Your task to perform on an android device: uninstall "Google Drive" Image 0: 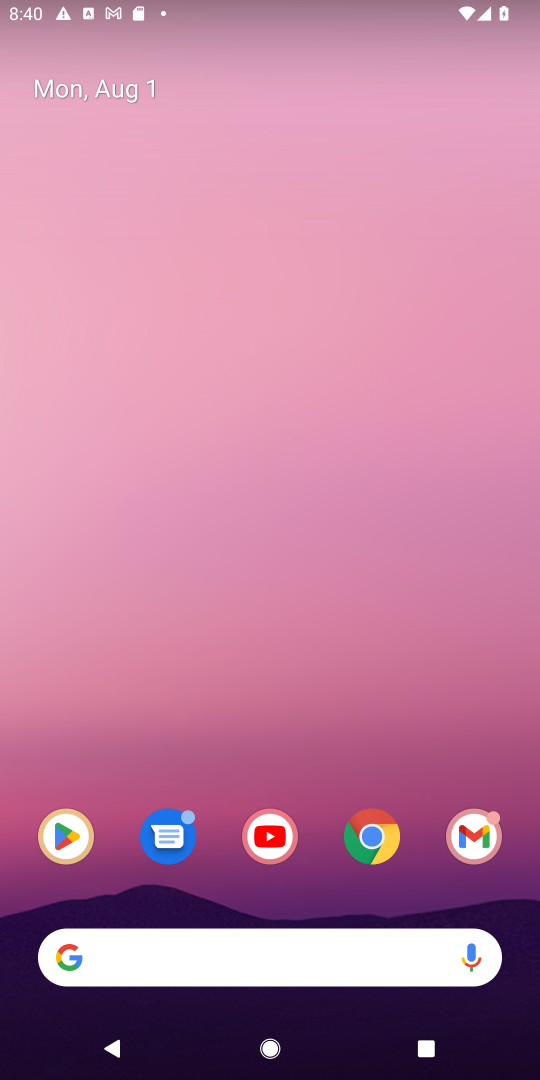
Step 0: press home button
Your task to perform on an android device: uninstall "Google Drive" Image 1: 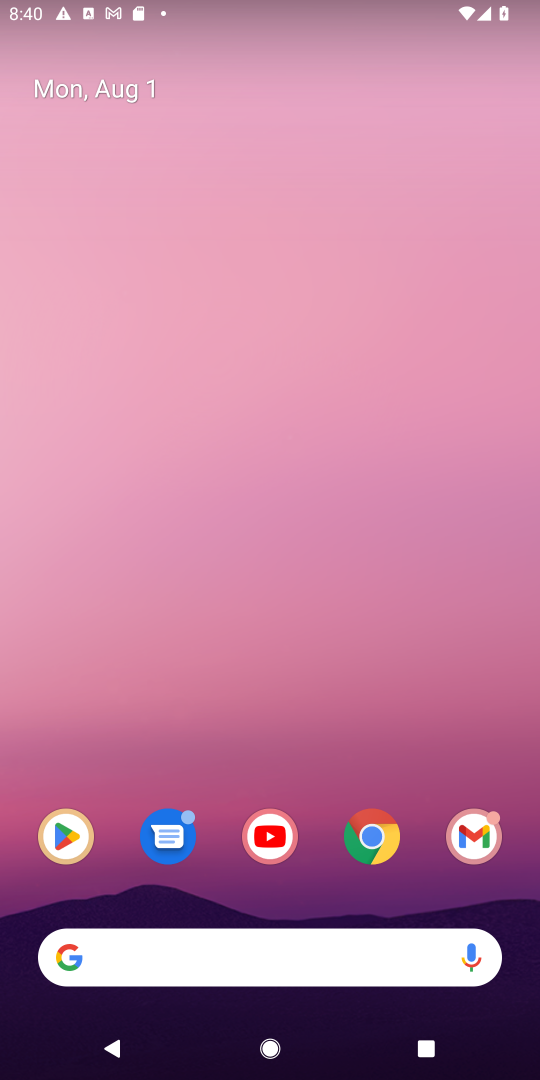
Step 1: click (55, 829)
Your task to perform on an android device: uninstall "Google Drive" Image 2: 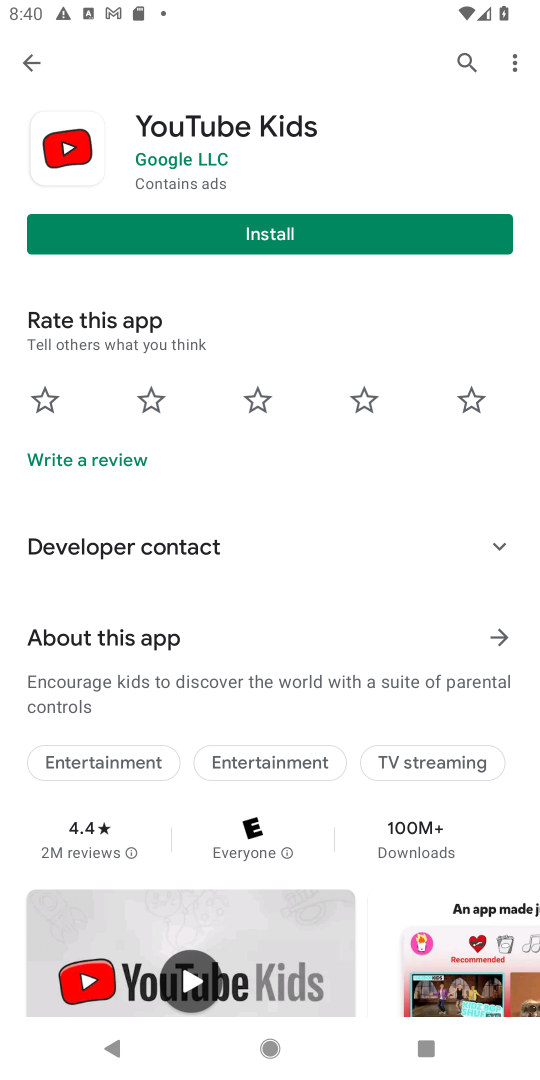
Step 2: click (464, 59)
Your task to perform on an android device: uninstall "Google Drive" Image 3: 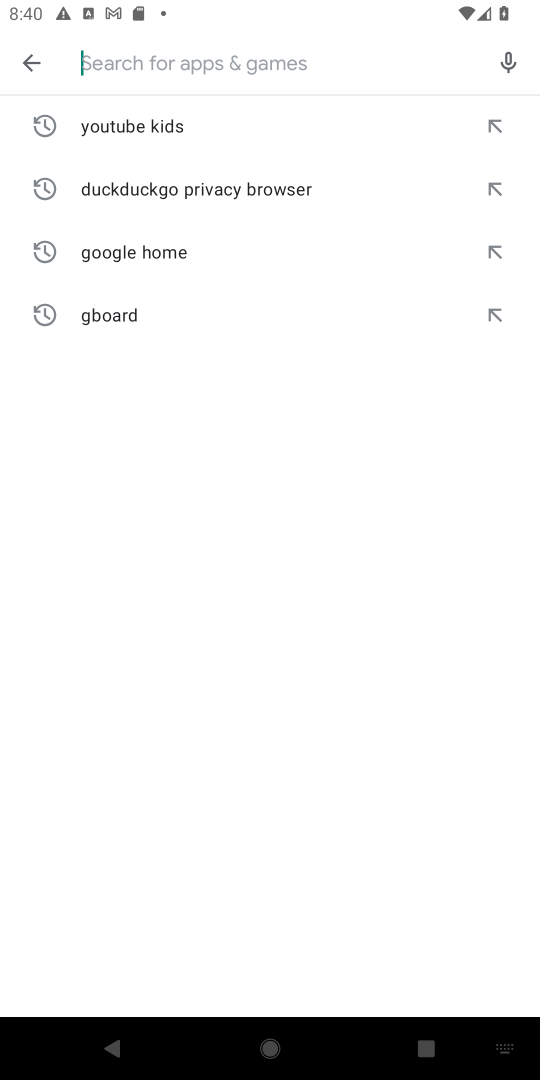
Step 3: type "Google Drive"
Your task to perform on an android device: uninstall "Google Drive" Image 4: 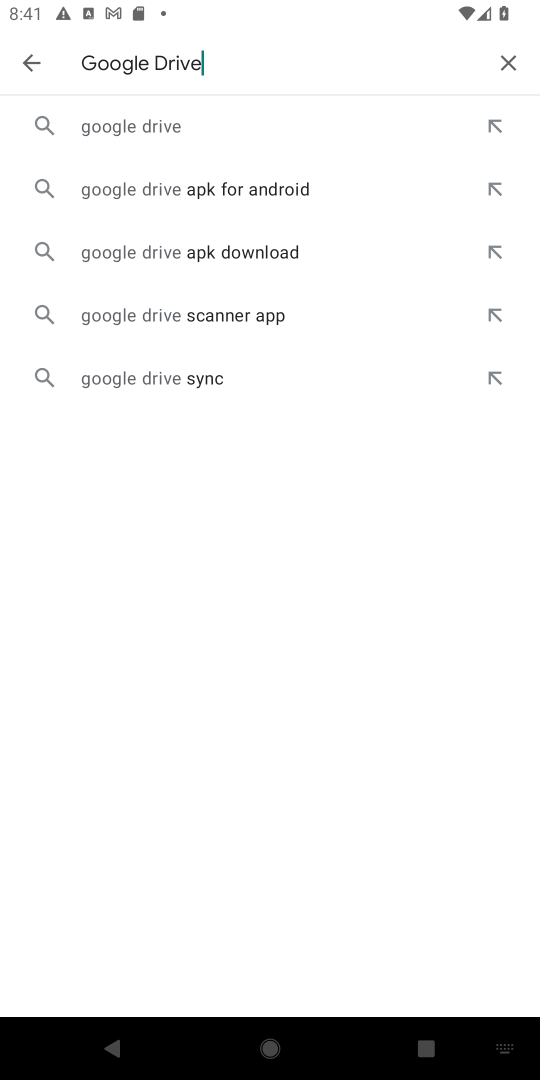
Step 4: click (154, 132)
Your task to perform on an android device: uninstall "Google Drive" Image 5: 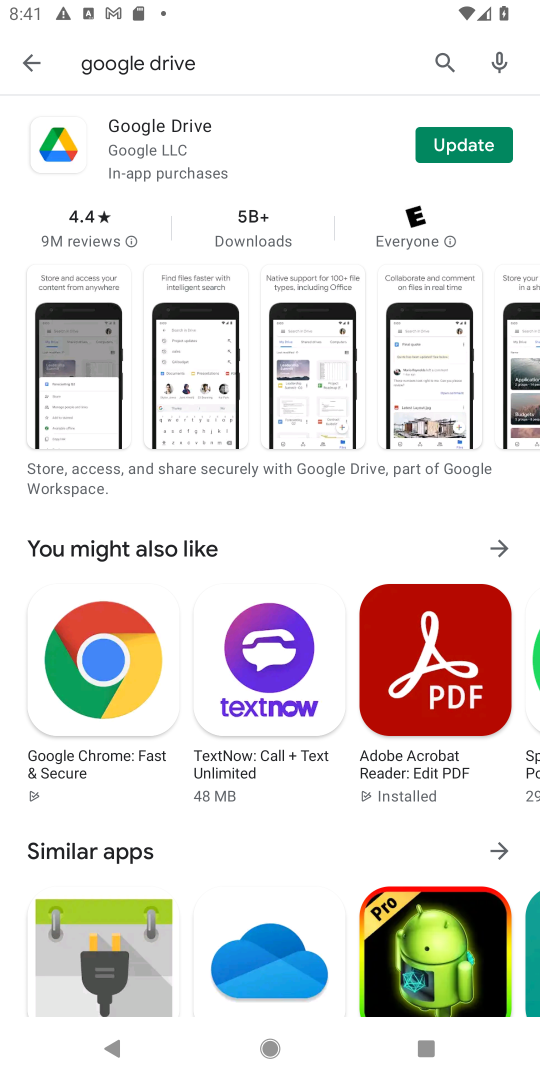
Step 5: click (118, 152)
Your task to perform on an android device: uninstall "Google Drive" Image 6: 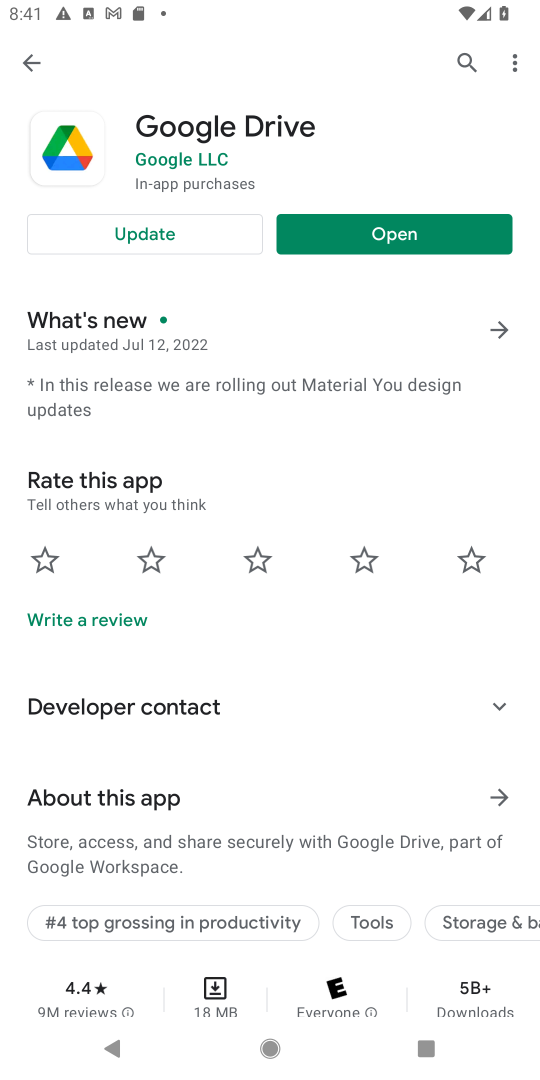
Step 6: task complete